Your task to perform on an android device: Do I have any events today? Image 0: 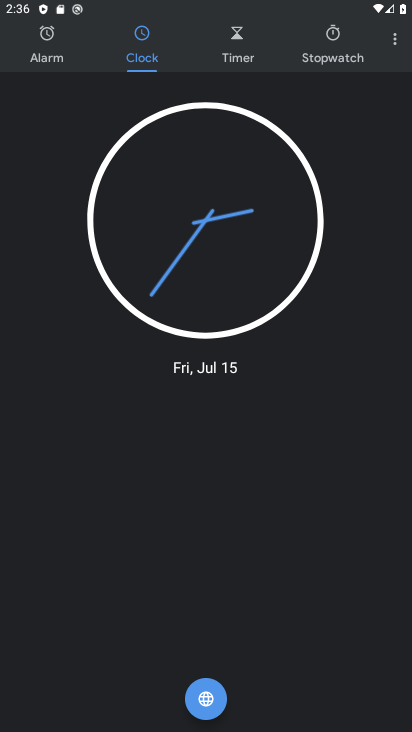
Step 0: press home button
Your task to perform on an android device: Do I have any events today? Image 1: 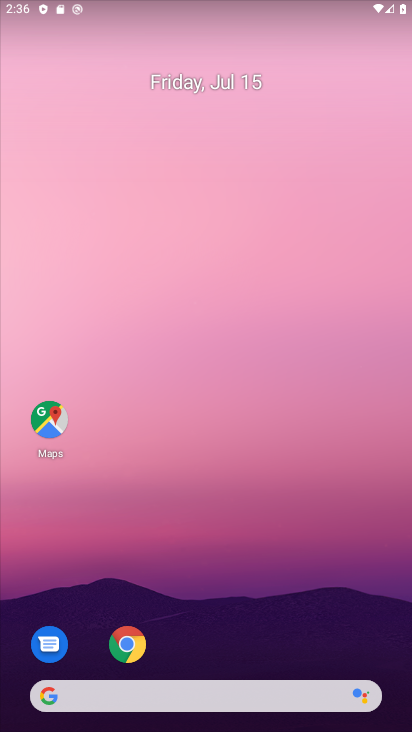
Step 1: drag from (296, 618) to (284, 15)
Your task to perform on an android device: Do I have any events today? Image 2: 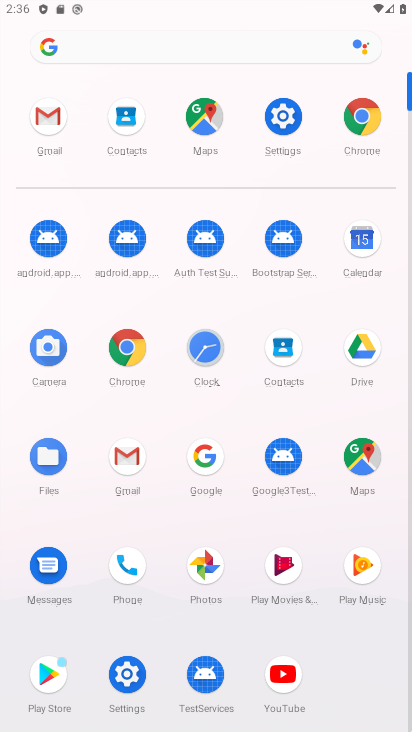
Step 2: click (369, 242)
Your task to perform on an android device: Do I have any events today? Image 3: 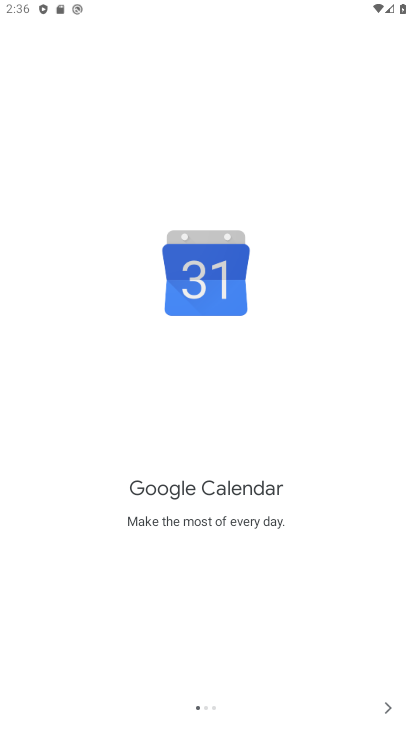
Step 3: click (382, 704)
Your task to perform on an android device: Do I have any events today? Image 4: 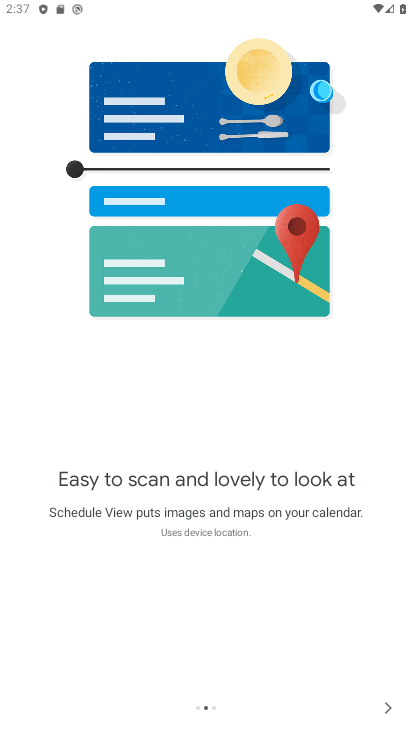
Step 4: click (381, 705)
Your task to perform on an android device: Do I have any events today? Image 5: 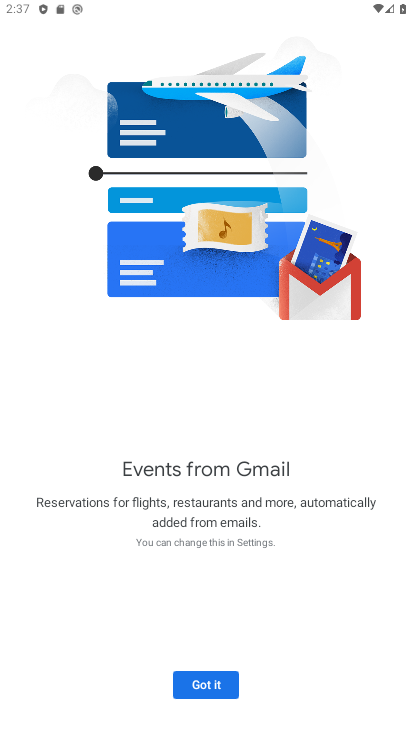
Step 5: click (381, 705)
Your task to perform on an android device: Do I have any events today? Image 6: 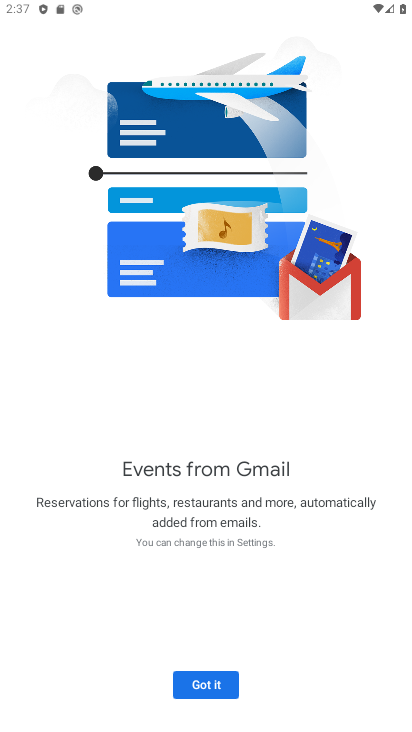
Step 6: click (207, 692)
Your task to perform on an android device: Do I have any events today? Image 7: 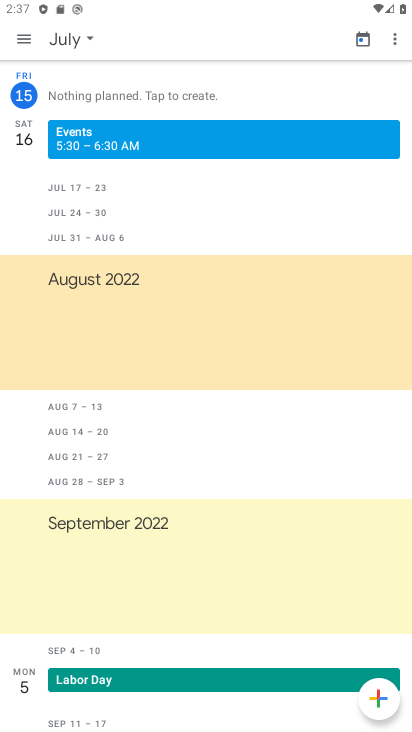
Step 7: click (84, 31)
Your task to perform on an android device: Do I have any events today? Image 8: 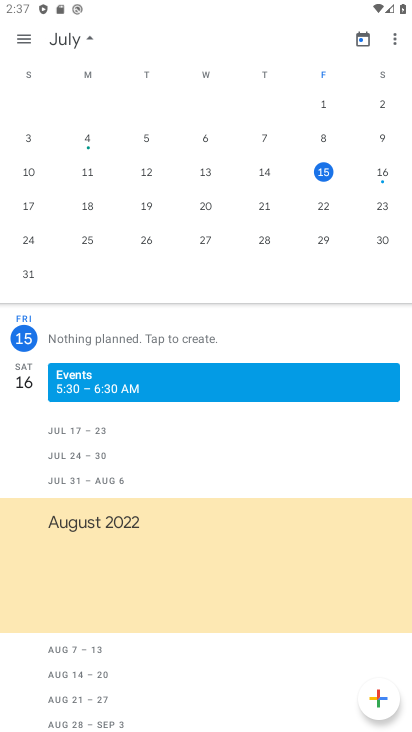
Step 8: click (384, 167)
Your task to perform on an android device: Do I have any events today? Image 9: 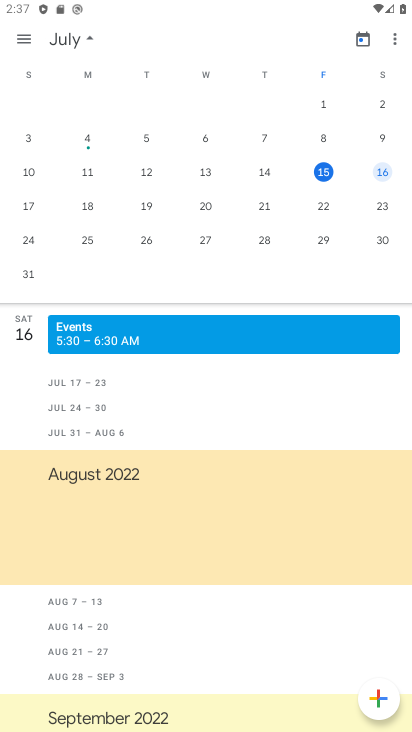
Step 9: task complete